Your task to perform on an android device: toggle javascript in the chrome app Image 0: 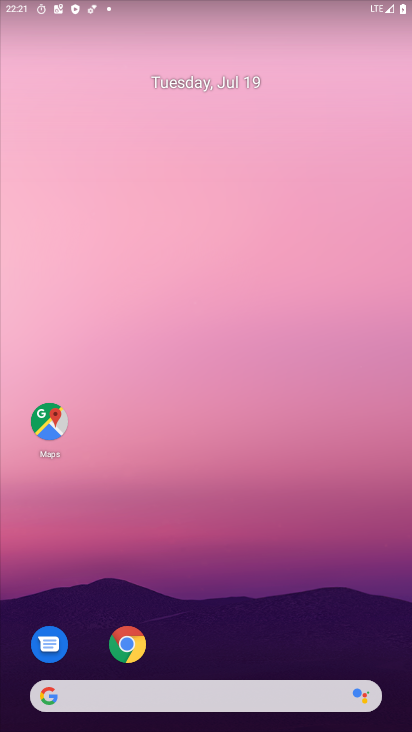
Step 0: press home button
Your task to perform on an android device: toggle javascript in the chrome app Image 1: 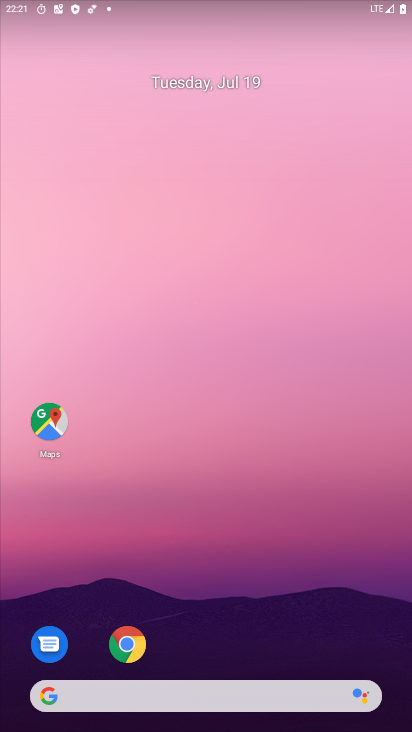
Step 1: click (138, 642)
Your task to perform on an android device: toggle javascript in the chrome app Image 2: 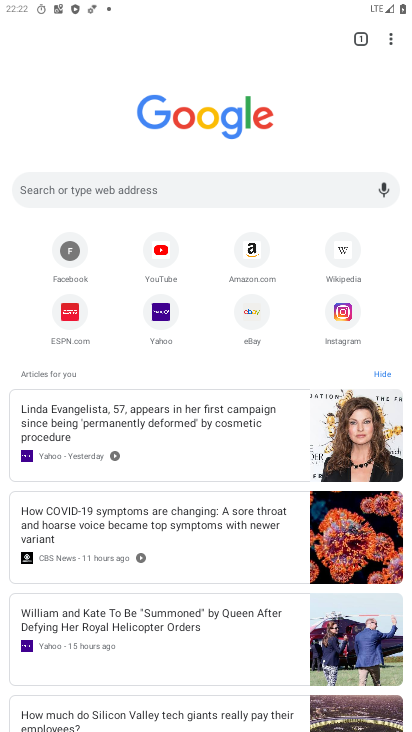
Step 2: drag from (395, 45) to (227, 328)
Your task to perform on an android device: toggle javascript in the chrome app Image 3: 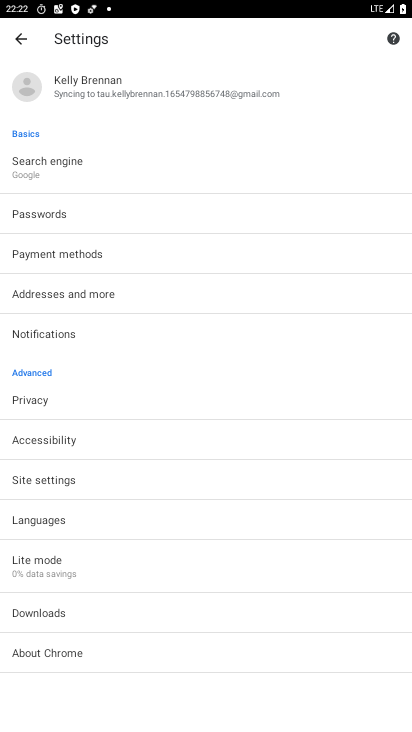
Step 3: click (52, 489)
Your task to perform on an android device: toggle javascript in the chrome app Image 4: 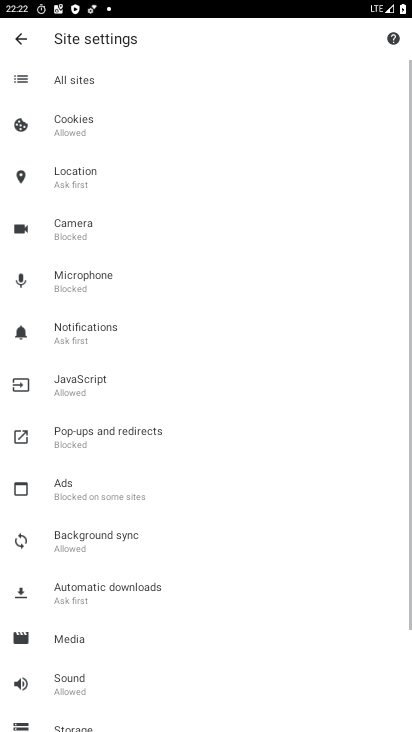
Step 4: click (67, 399)
Your task to perform on an android device: toggle javascript in the chrome app Image 5: 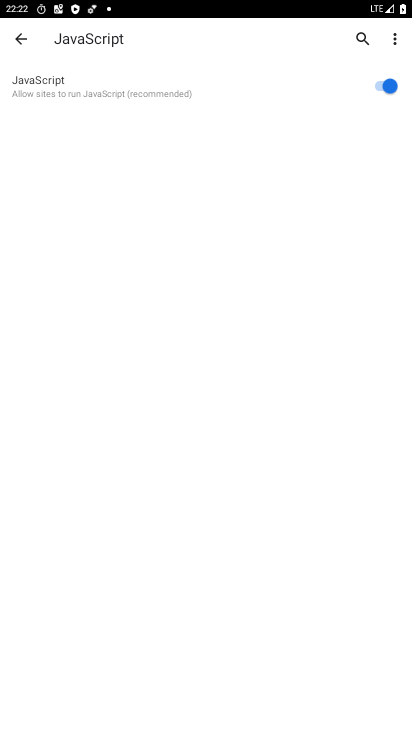
Step 5: click (209, 112)
Your task to perform on an android device: toggle javascript in the chrome app Image 6: 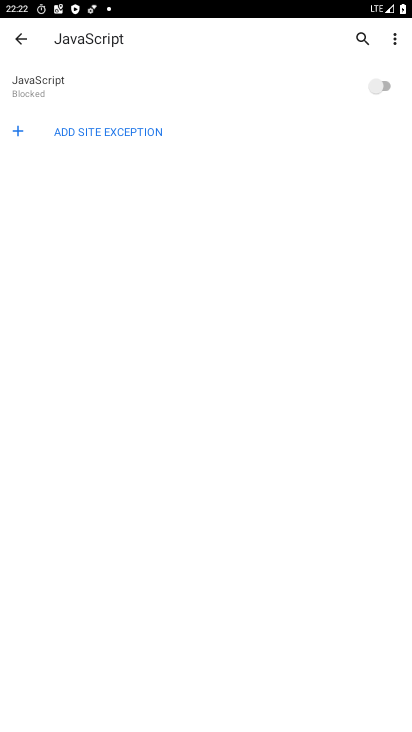
Step 6: task complete